Your task to perform on an android device: turn on showing notifications on the lock screen Image 0: 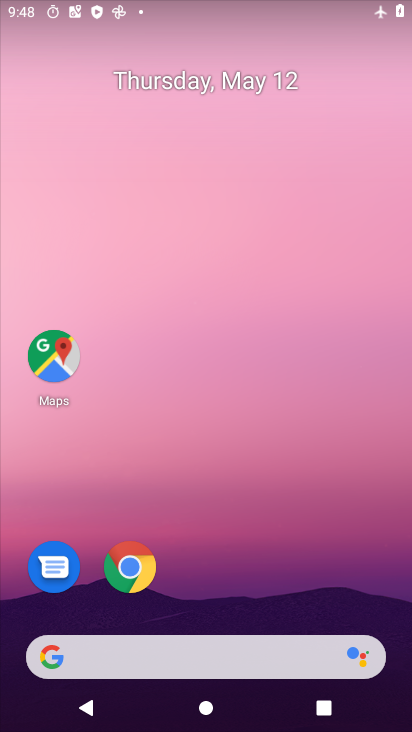
Step 0: drag from (262, 673) to (275, 240)
Your task to perform on an android device: turn on showing notifications on the lock screen Image 1: 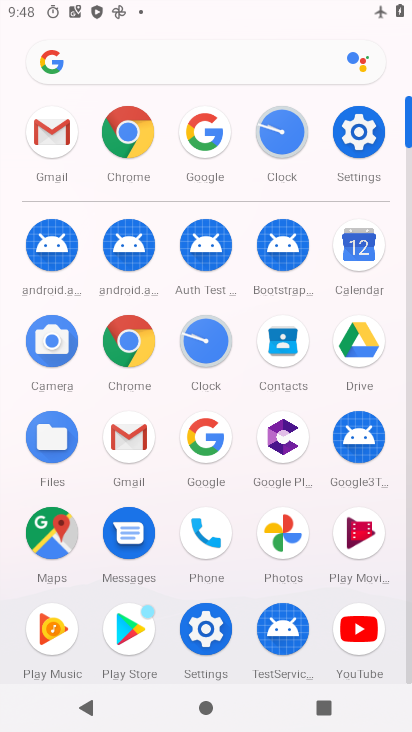
Step 1: click (363, 131)
Your task to perform on an android device: turn on showing notifications on the lock screen Image 2: 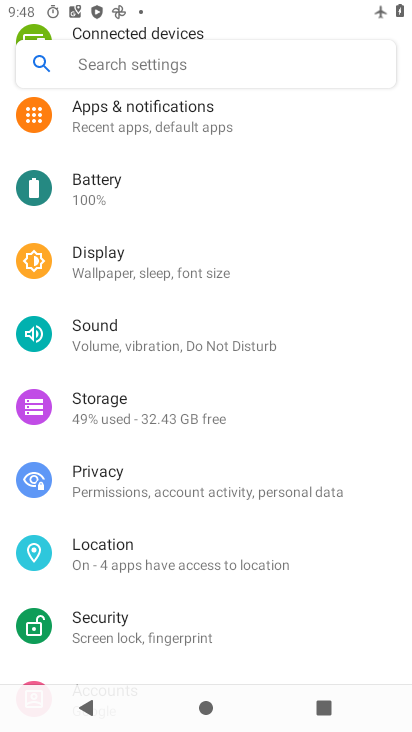
Step 2: drag from (245, 336) to (227, 485)
Your task to perform on an android device: turn on showing notifications on the lock screen Image 3: 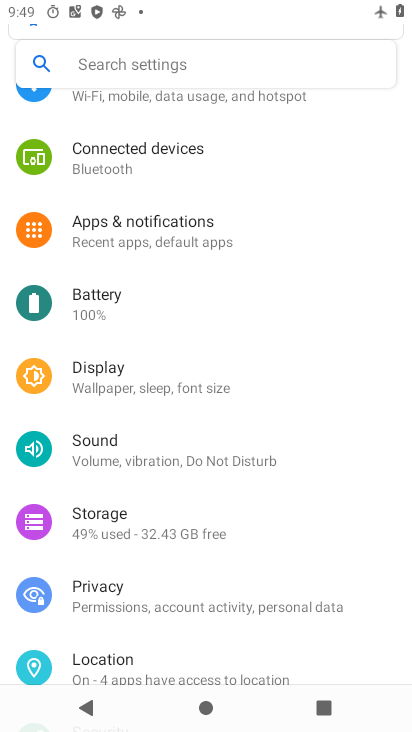
Step 3: click (212, 245)
Your task to perform on an android device: turn on showing notifications on the lock screen Image 4: 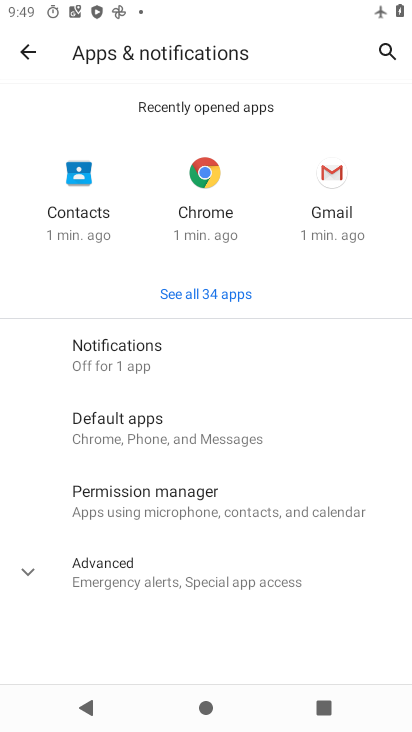
Step 4: click (151, 366)
Your task to perform on an android device: turn on showing notifications on the lock screen Image 5: 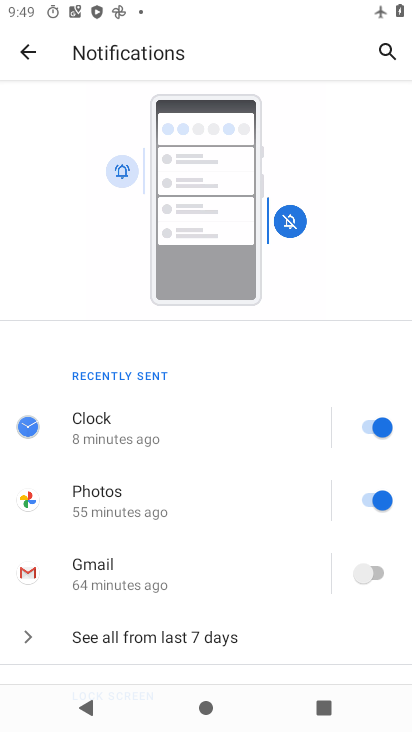
Step 5: drag from (144, 577) to (170, 348)
Your task to perform on an android device: turn on showing notifications on the lock screen Image 6: 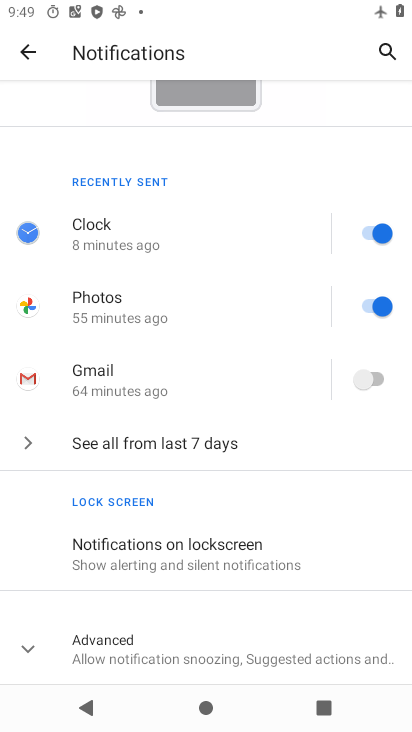
Step 6: click (170, 546)
Your task to perform on an android device: turn on showing notifications on the lock screen Image 7: 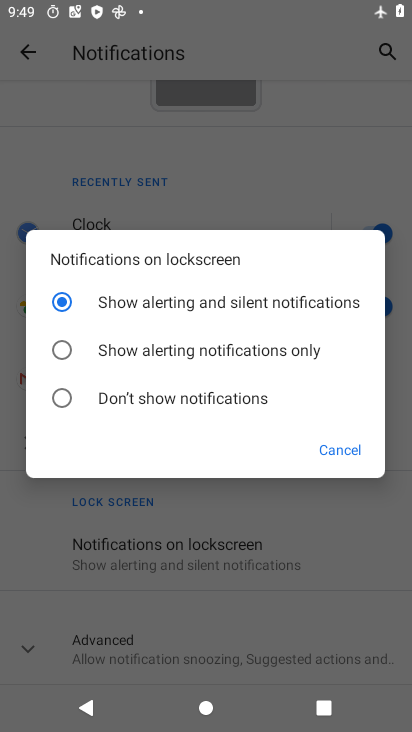
Step 7: task complete